Your task to perform on an android device: Go to eBay Image 0: 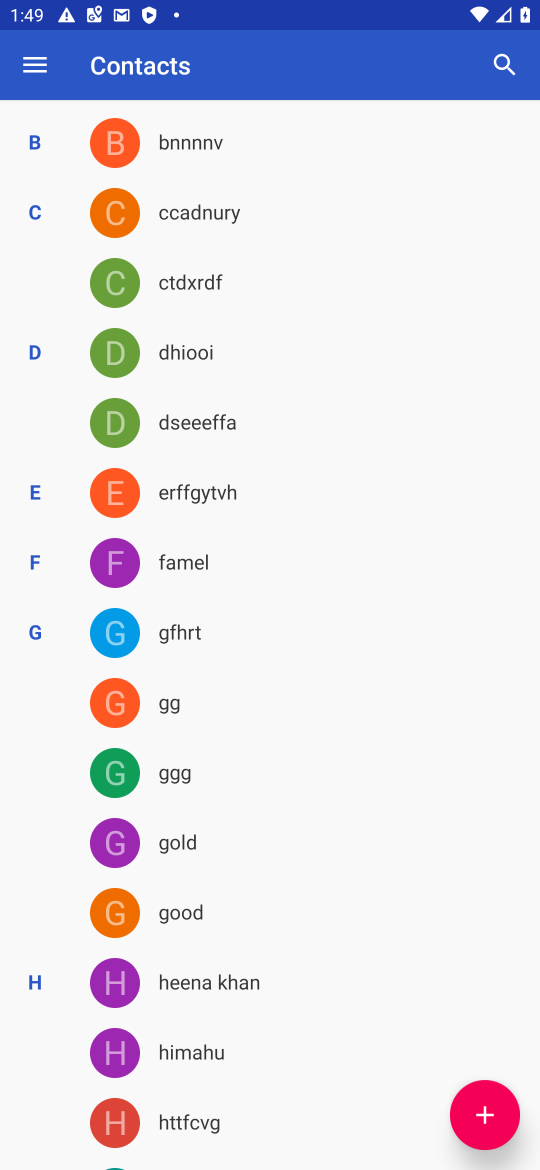
Step 0: press home button
Your task to perform on an android device: Go to eBay Image 1: 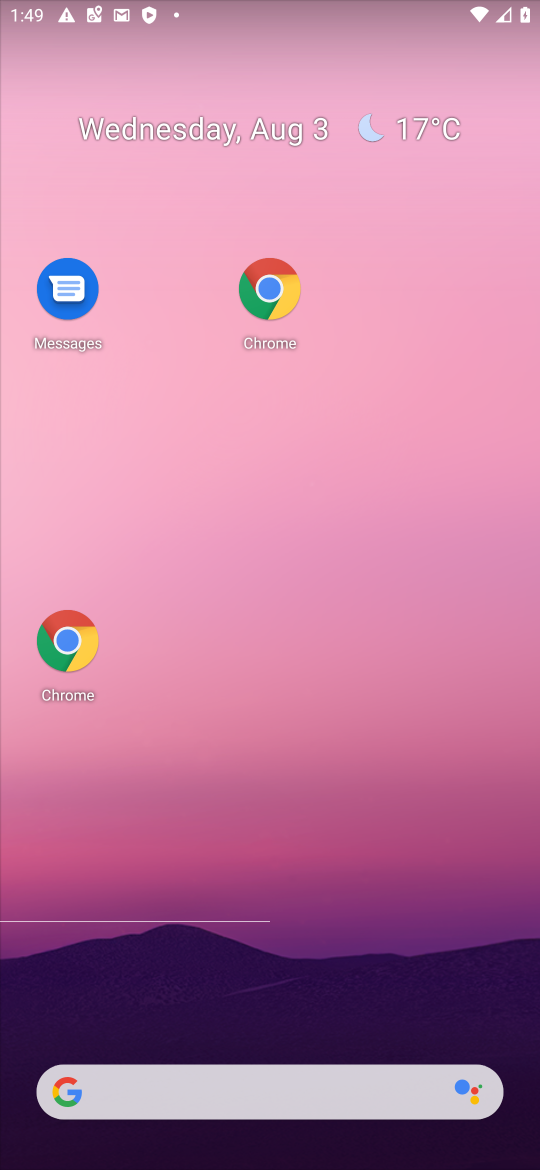
Step 1: click (63, 644)
Your task to perform on an android device: Go to eBay Image 2: 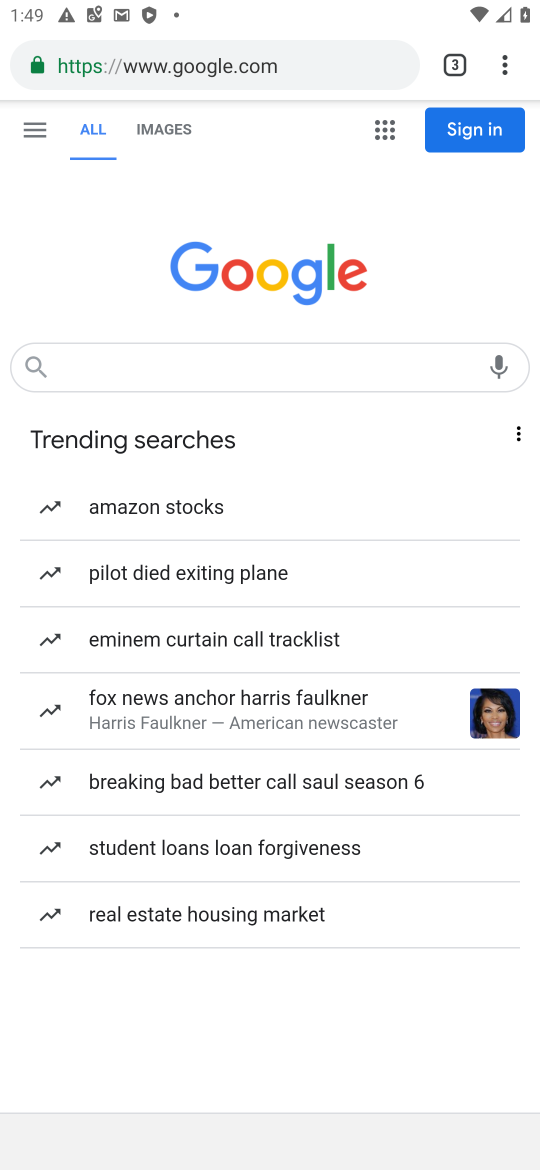
Step 2: click (309, 75)
Your task to perform on an android device: Go to eBay Image 3: 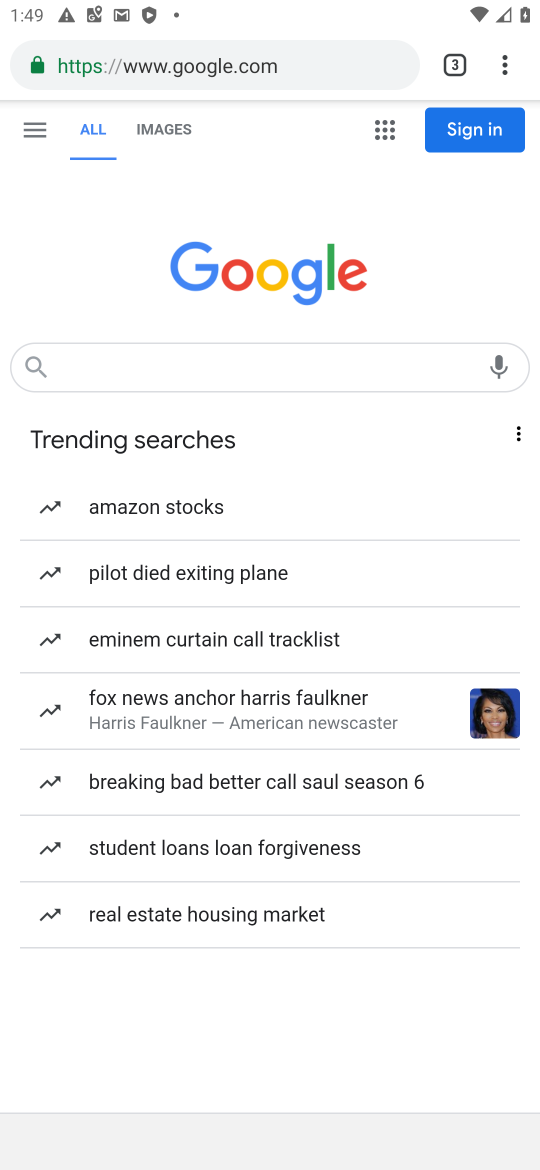
Step 3: click (309, 75)
Your task to perform on an android device: Go to eBay Image 4: 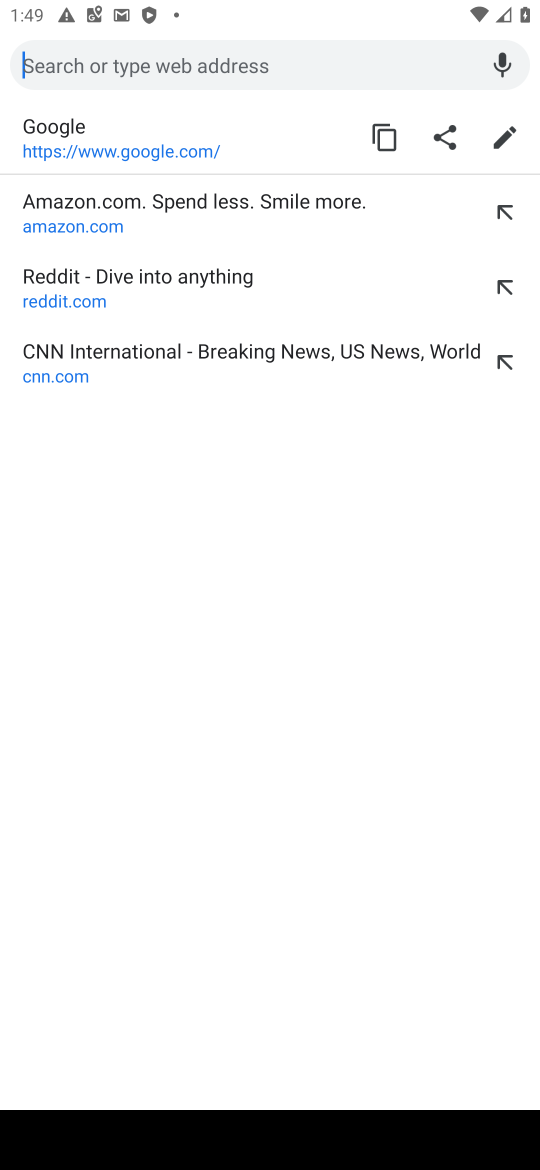
Step 4: type "ebay.com"
Your task to perform on an android device: Go to eBay Image 5: 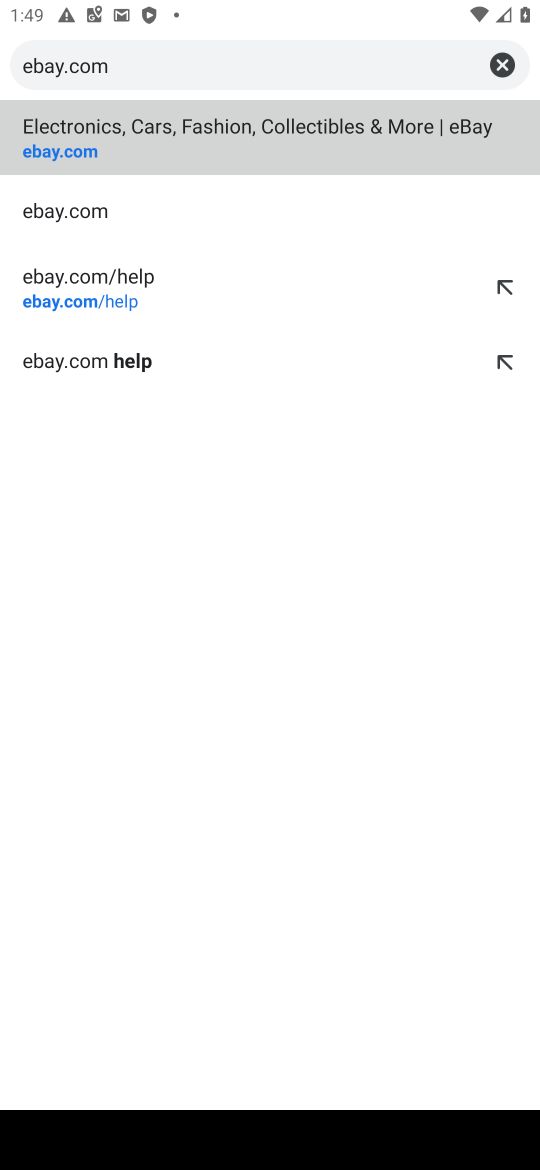
Step 5: click (145, 118)
Your task to perform on an android device: Go to eBay Image 6: 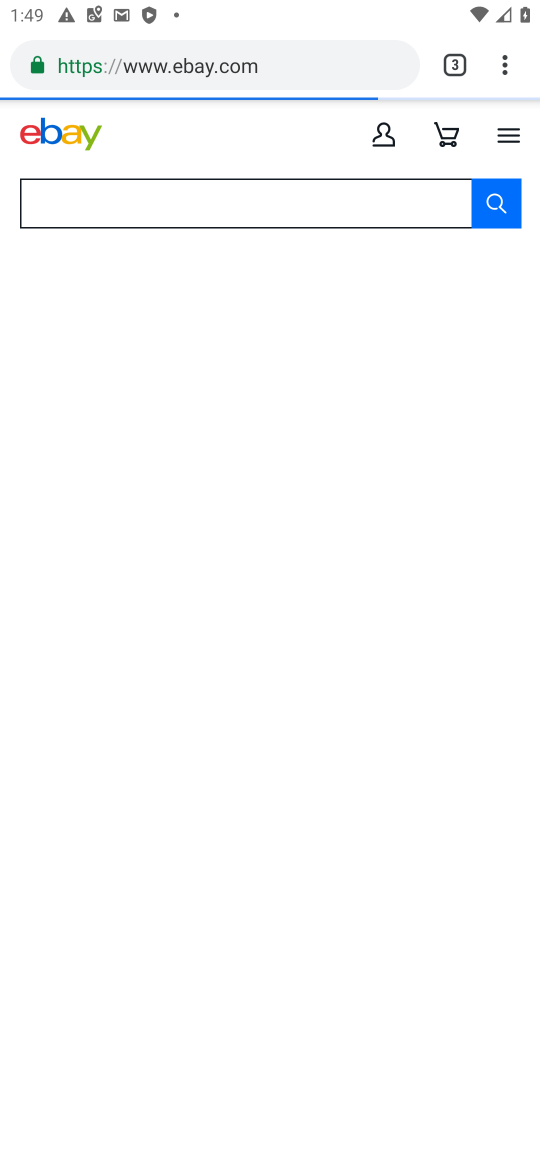
Step 6: task complete